Your task to perform on an android device: check android version Image 0: 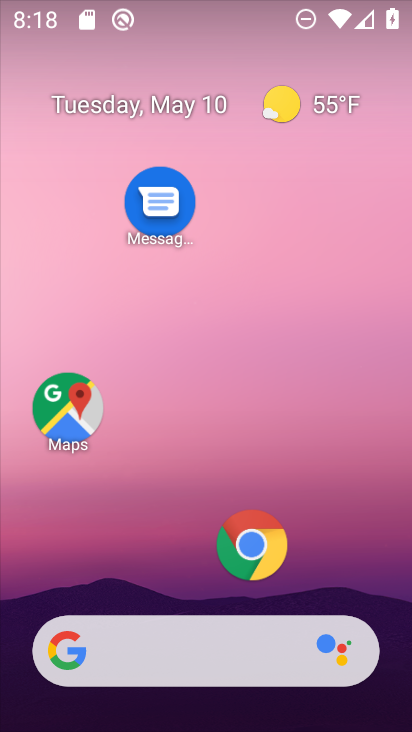
Step 0: drag from (192, 595) to (201, 168)
Your task to perform on an android device: check android version Image 1: 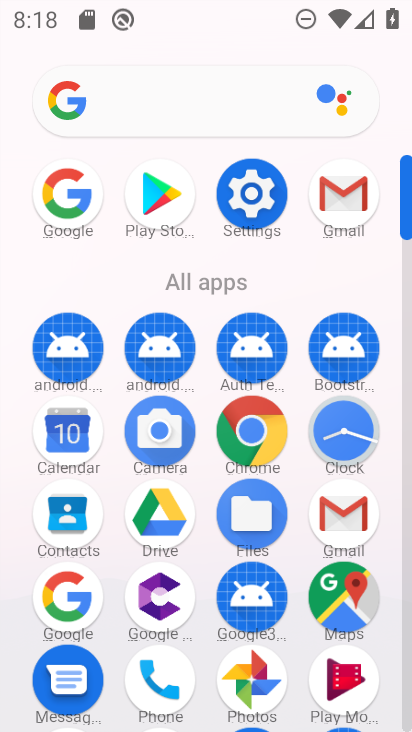
Step 1: click (257, 191)
Your task to perform on an android device: check android version Image 2: 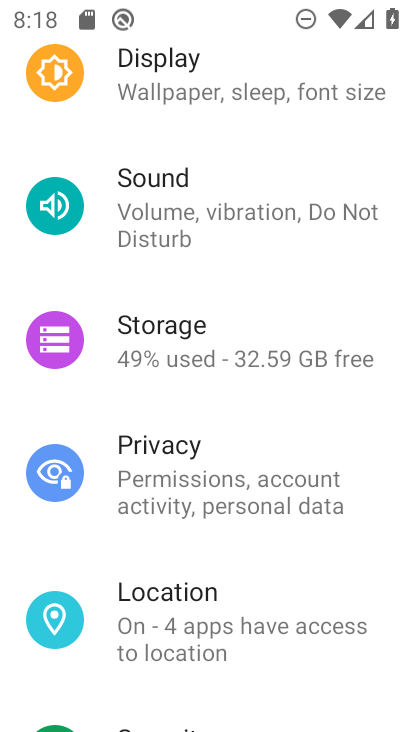
Step 2: drag from (240, 622) to (299, 183)
Your task to perform on an android device: check android version Image 3: 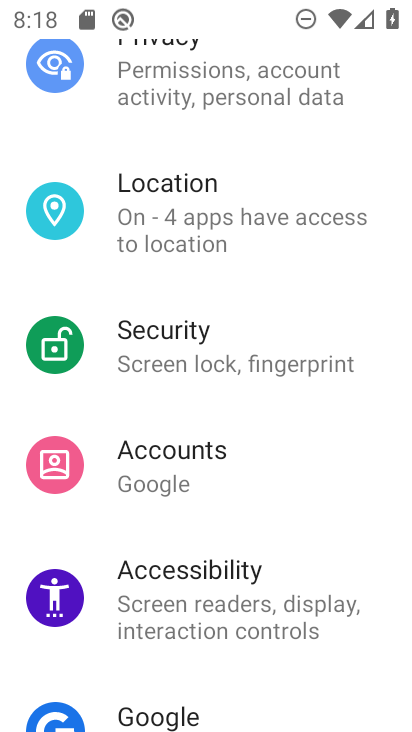
Step 3: drag from (222, 619) to (234, 306)
Your task to perform on an android device: check android version Image 4: 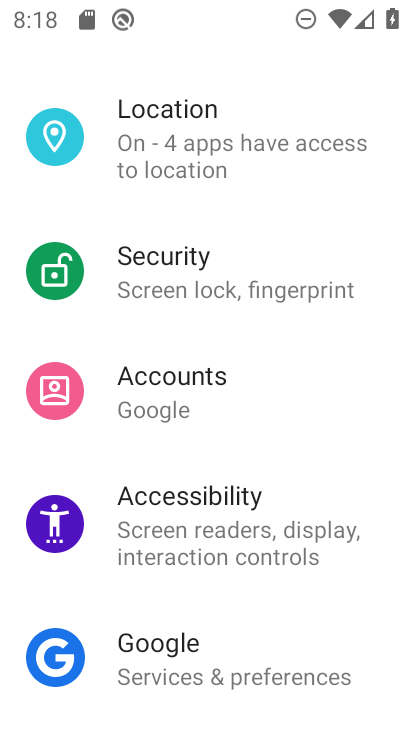
Step 4: drag from (235, 696) to (271, 402)
Your task to perform on an android device: check android version Image 5: 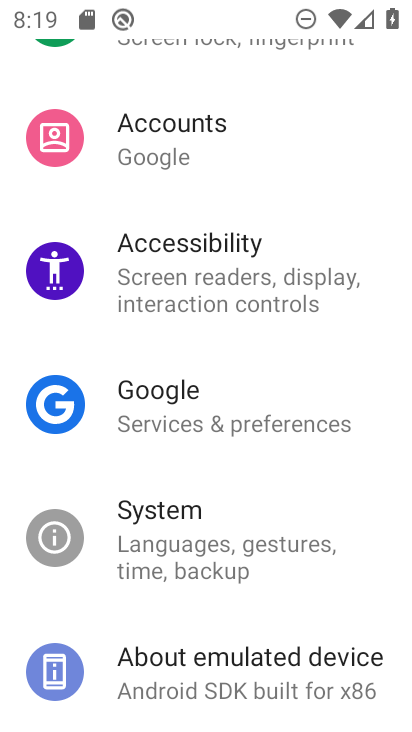
Step 5: drag from (203, 644) to (215, 455)
Your task to perform on an android device: check android version Image 6: 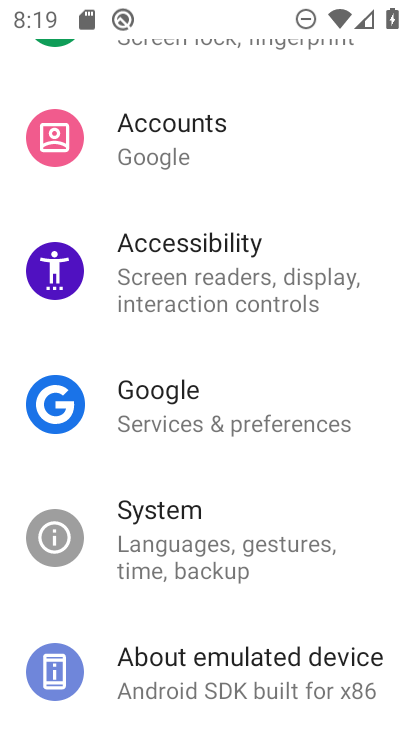
Step 6: click (218, 677)
Your task to perform on an android device: check android version Image 7: 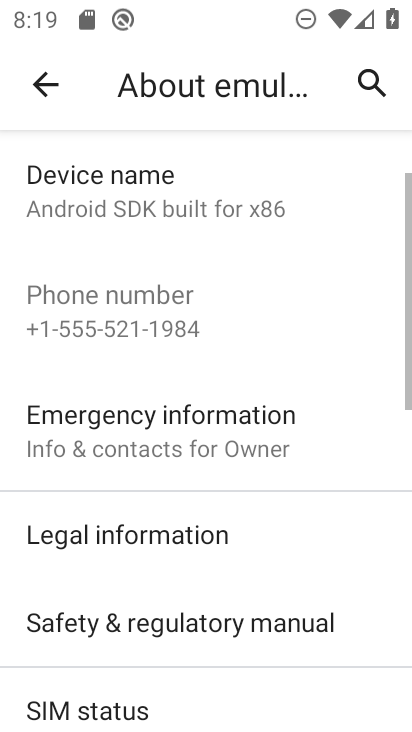
Step 7: drag from (187, 590) to (269, 298)
Your task to perform on an android device: check android version Image 8: 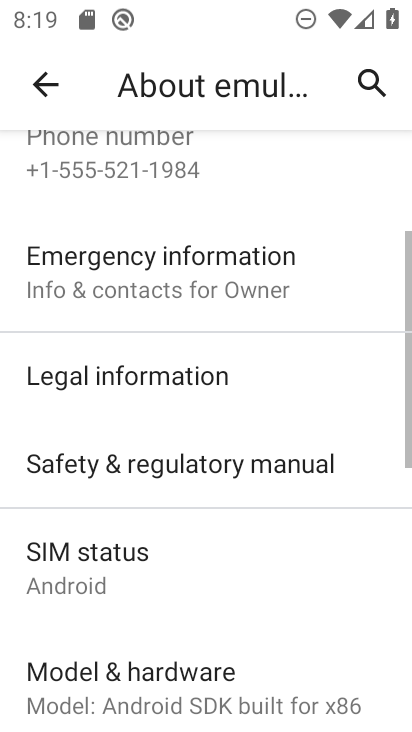
Step 8: drag from (195, 611) to (230, 205)
Your task to perform on an android device: check android version Image 9: 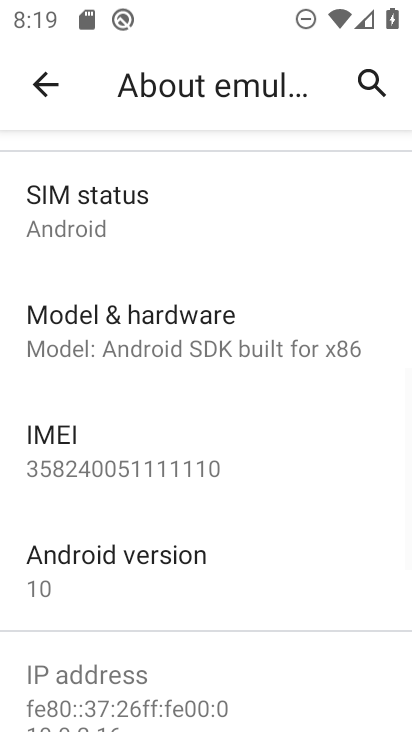
Step 9: click (113, 602)
Your task to perform on an android device: check android version Image 10: 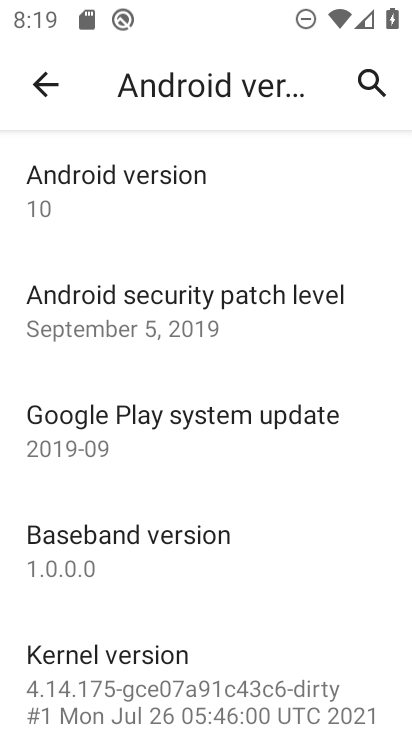
Step 10: click (95, 205)
Your task to perform on an android device: check android version Image 11: 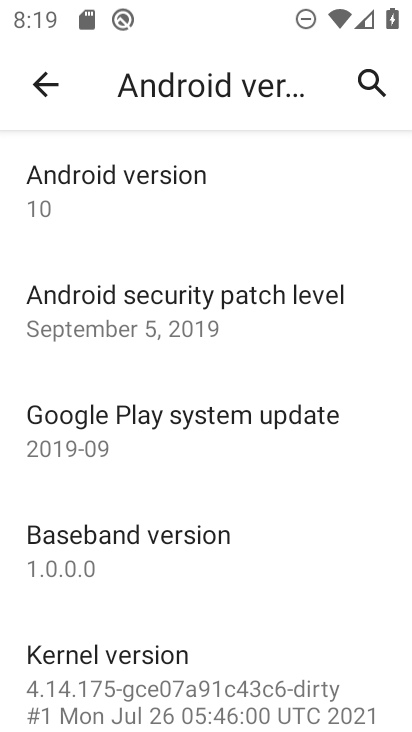
Step 11: click (213, 198)
Your task to perform on an android device: check android version Image 12: 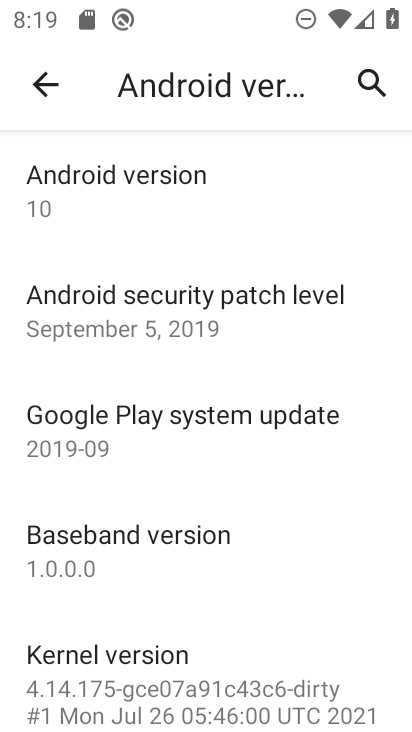
Step 12: task complete